Your task to perform on an android device: Open calendar and show me the first week of next month Image 0: 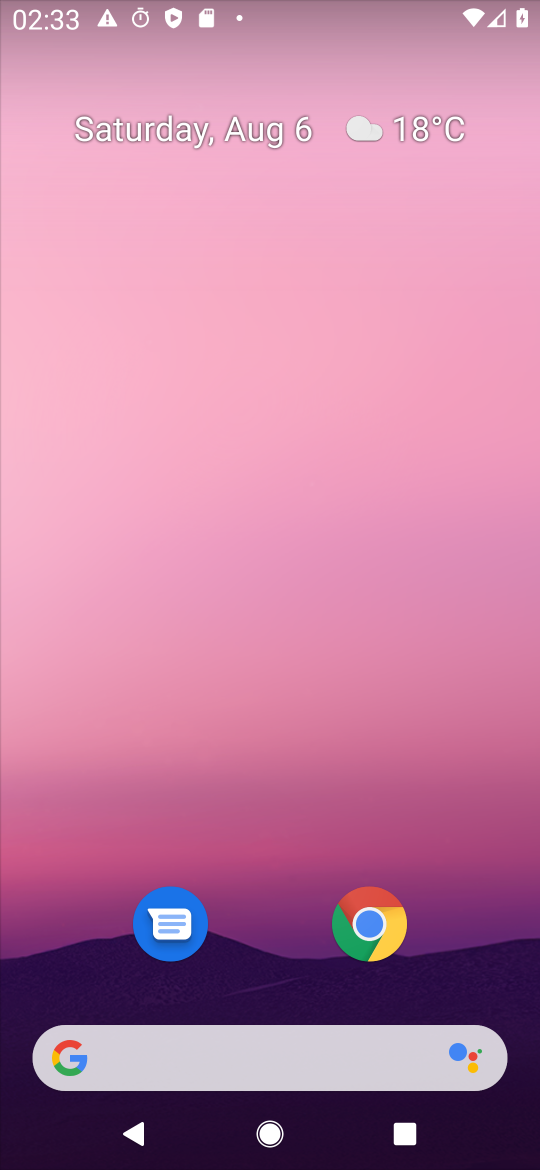
Step 0: drag from (396, 1047) to (275, 64)
Your task to perform on an android device: Open calendar and show me the first week of next month Image 1: 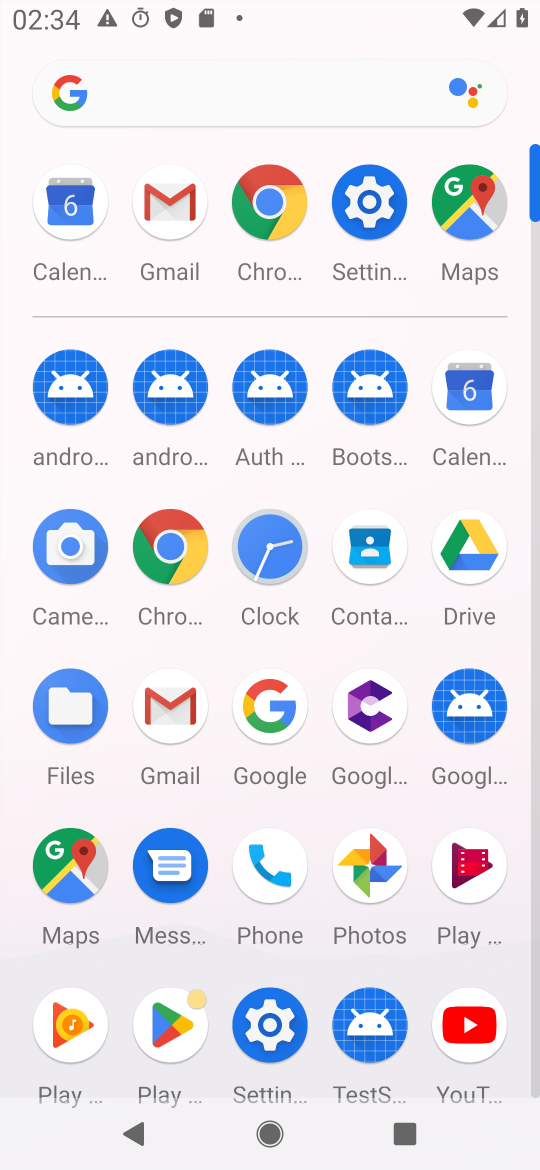
Step 1: click (452, 391)
Your task to perform on an android device: Open calendar and show me the first week of next month Image 2: 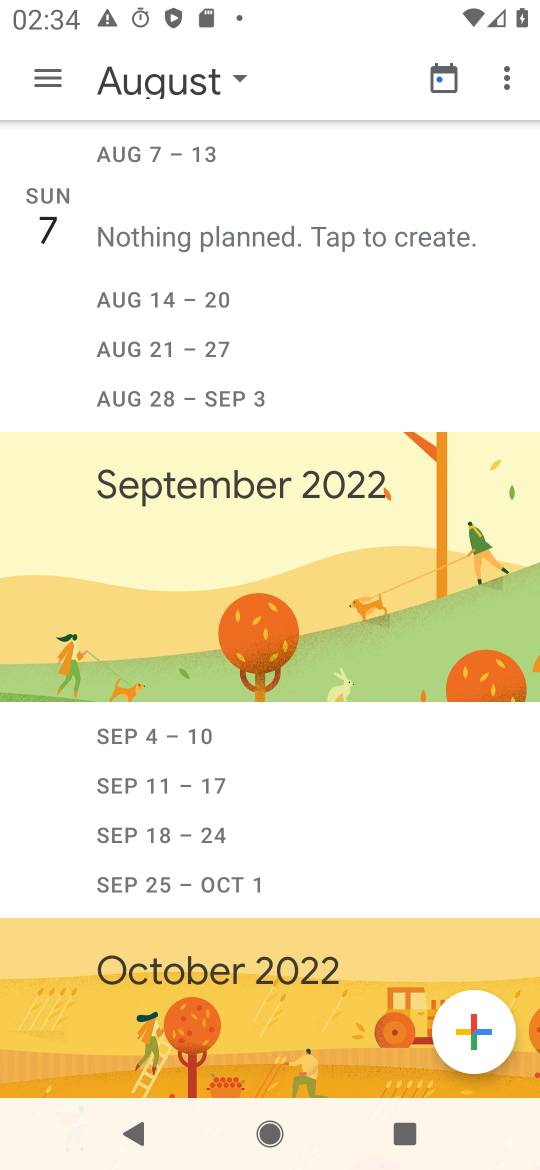
Step 2: click (229, 73)
Your task to perform on an android device: Open calendar and show me the first week of next month Image 3: 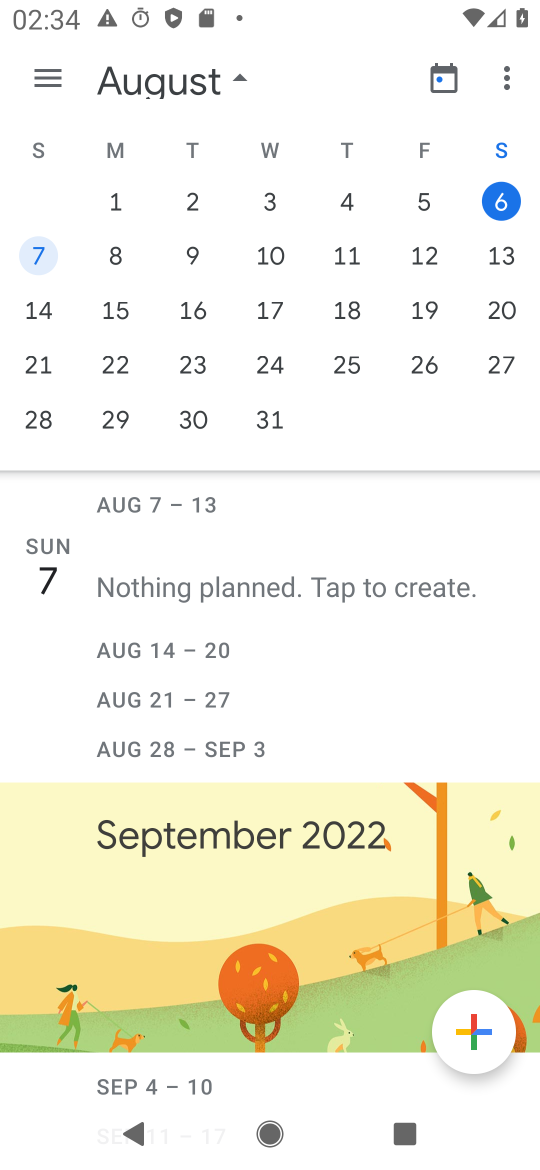
Step 3: drag from (473, 296) to (89, 300)
Your task to perform on an android device: Open calendar and show me the first week of next month Image 4: 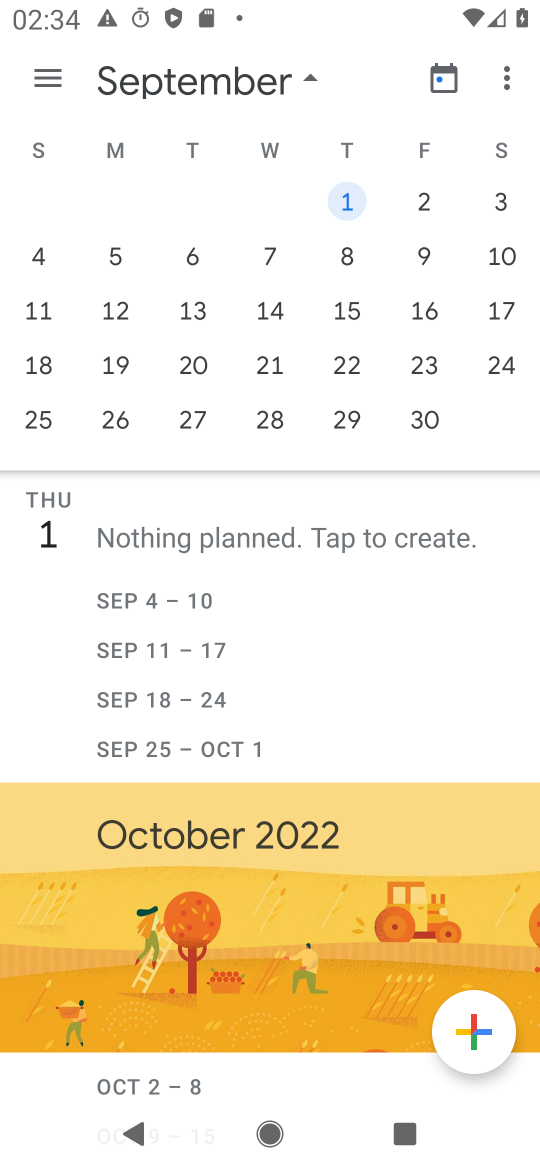
Step 4: click (415, 199)
Your task to perform on an android device: Open calendar and show me the first week of next month Image 5: 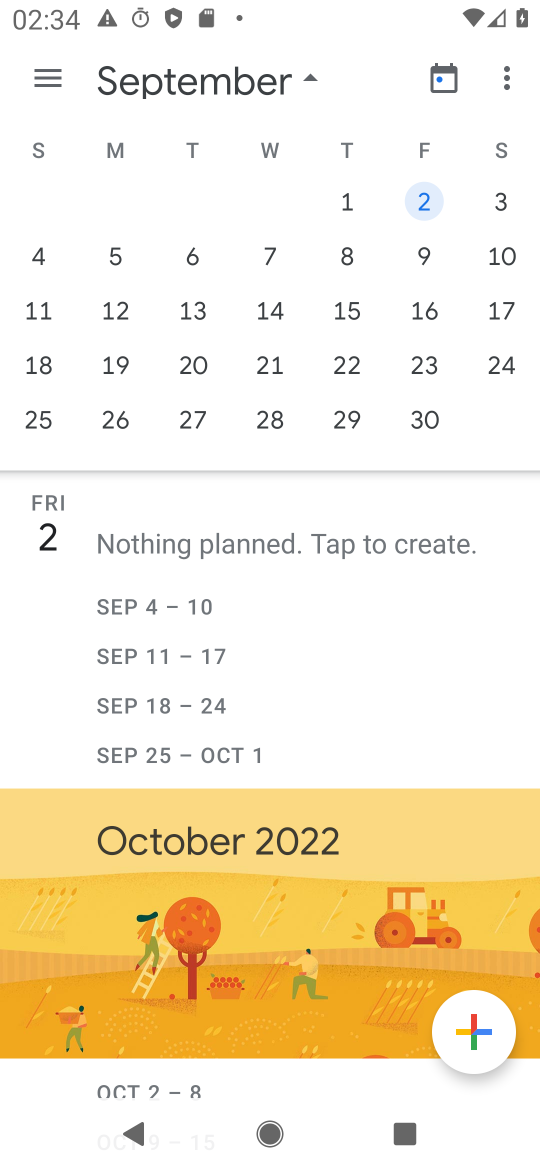
Step 5: task complete